Your task to perform on an android device: What's the weather? Image 0: 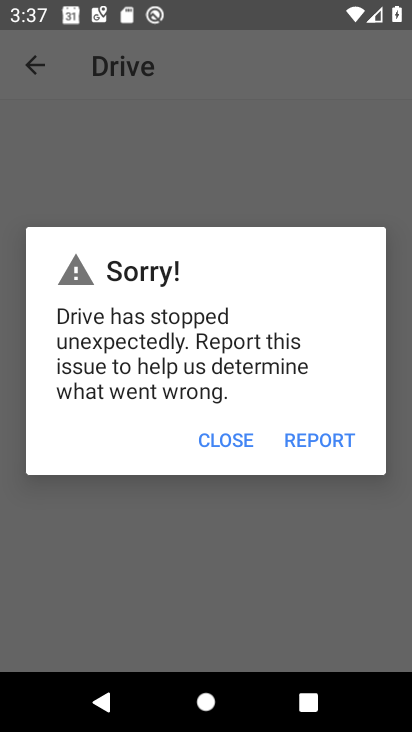
Step 0: press home button
Your task to perform on an android device: What's the weather? Image 1: 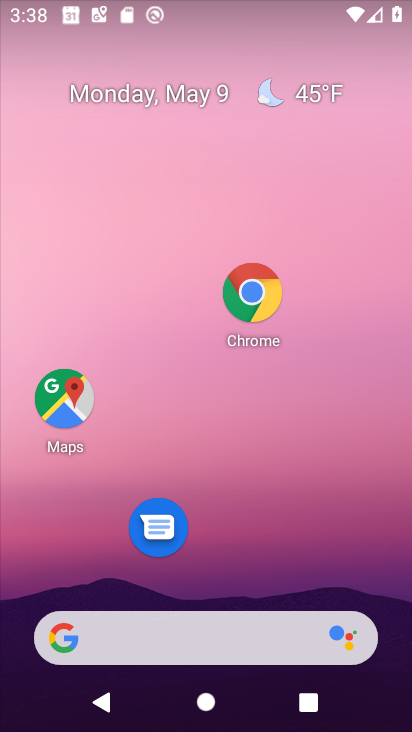
Step 1: drag from (272, 567) to (284, 305)
Your task to perform on an android device: What's the weather? Image 2: 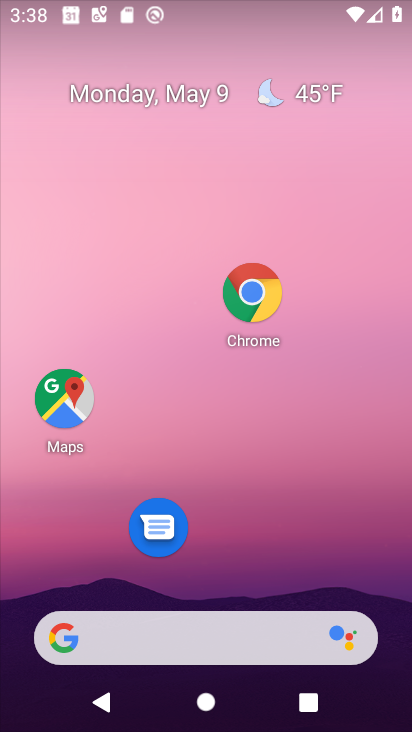
Step 2: drag from (231, 444) to (242, 139)
Your task to perform on an android device: What's the weather? Image 3: 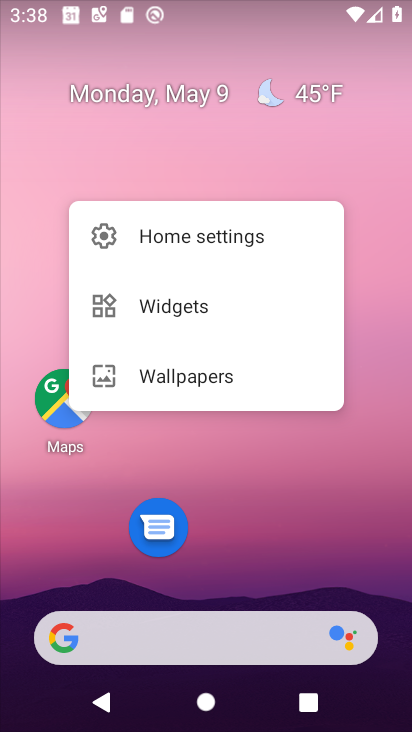
Step 3: click (371, 182)
Your task to perform on an android device: What's the weather? Image 4: 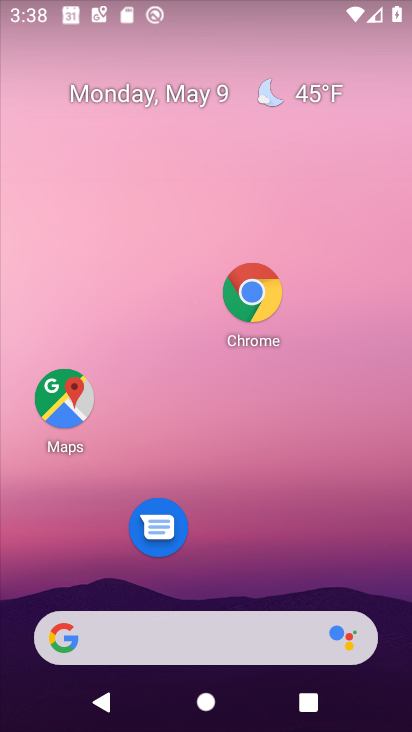
Step 4: drag from (314, 352) to (353, 86)
Your task to perform on an android device: What's the weather? Image 5: 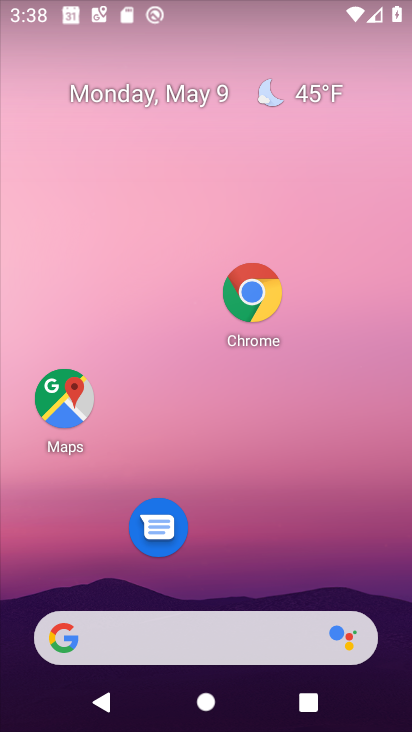
Step 5: drag from (295, 479) to (334, 133)
Your task to perform on an android device: What's the weather? Image 6: 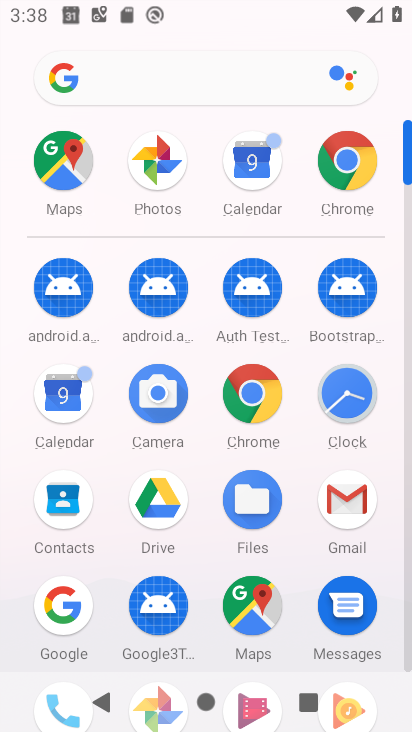
Step 6: drag from (281, 432) to (261, 125)
Your task to perform on an android device: What's the weather? Image 7: 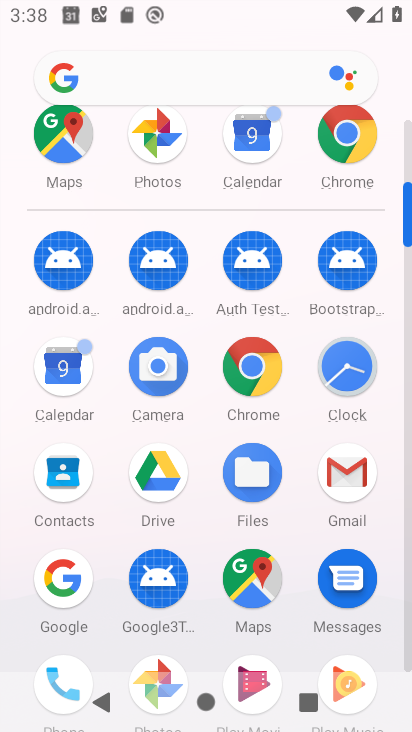
Step 7: click (68, 604)
Your task to perform on an android device: What's the weather? Image 8: 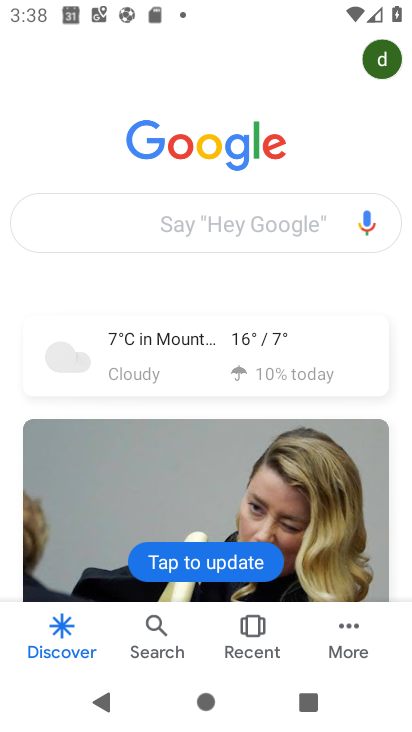
Step 8: click (241, 234)
Your task to perform on an android device: What's the weather? Image 9: 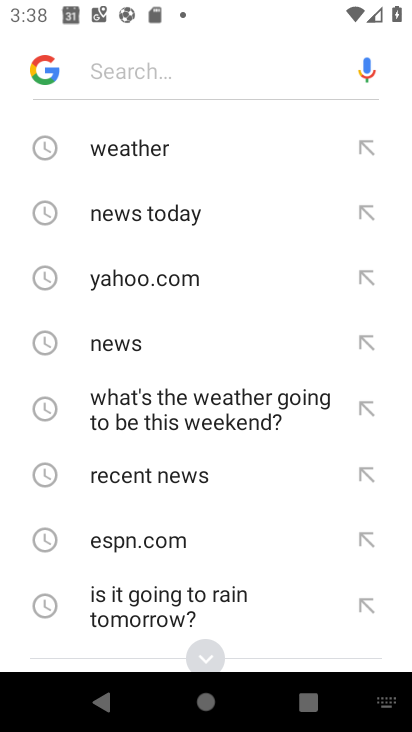
Step 9: click (224, 143)
Your task to perform on an android device: What's the weather? Image 10: 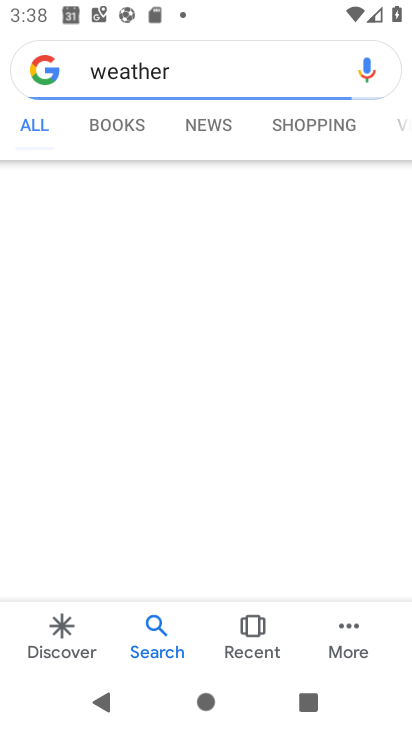
Step 10: task complete